Your task to perform on an android device: change the clock display to analog Image 0: 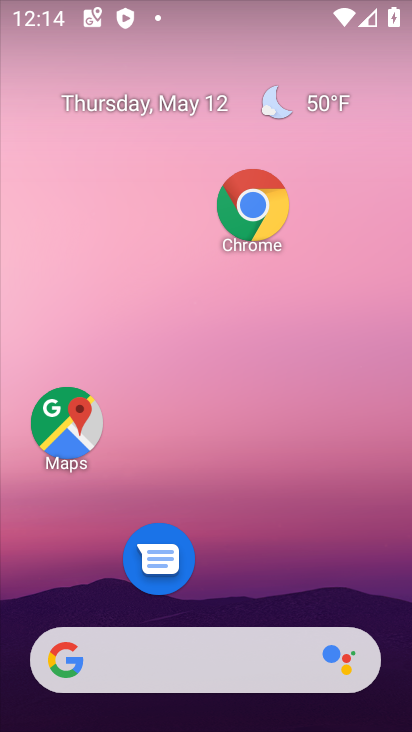
Step 0: drag from (242, 577) to (309, 186)
Your task to perform on an android device: change the clock display to analog Image 1: 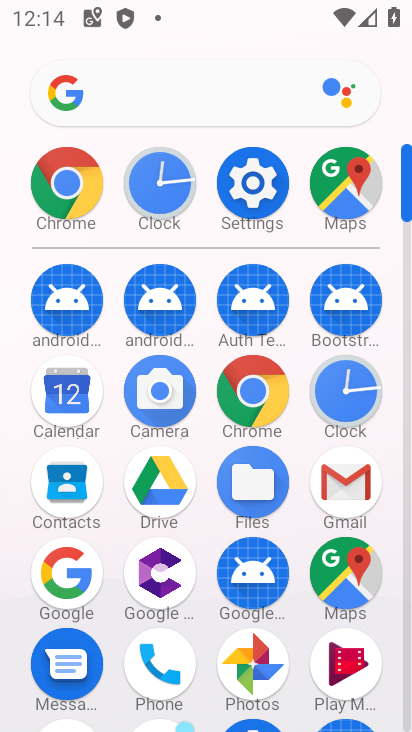
Step 1: click (344, 417)
Your task to perform on an android device: change the clock display to analog Image 2: 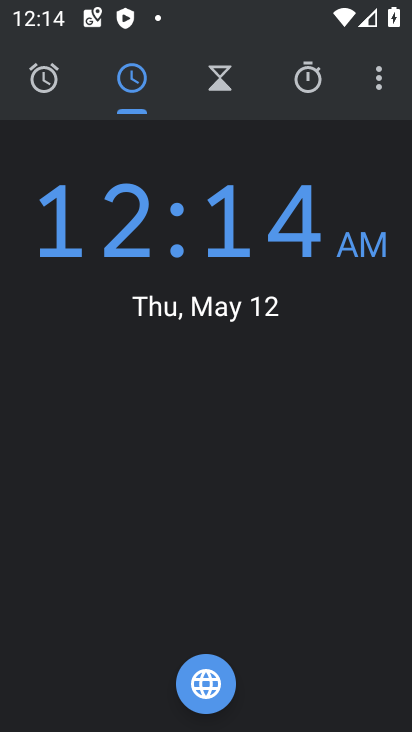
Step 2: click (381, 81)
Your task to perform on an android device: change the clock display to analog Image 3: 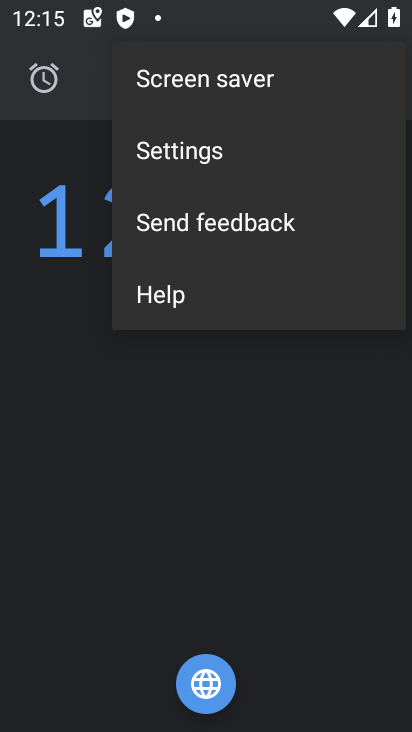
Step 3: click (192, 159)
Your task to perform on an android device: change the clock display to analog Image 4: 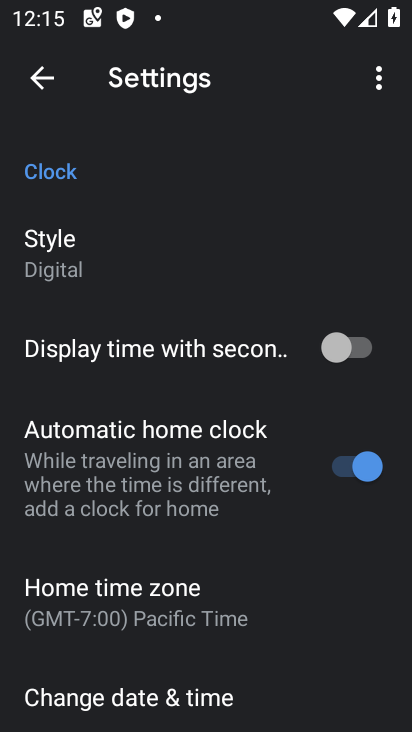
Step 4: click (93, 255)
Your task to perform on an android device: change the clock display to analog Image 5: 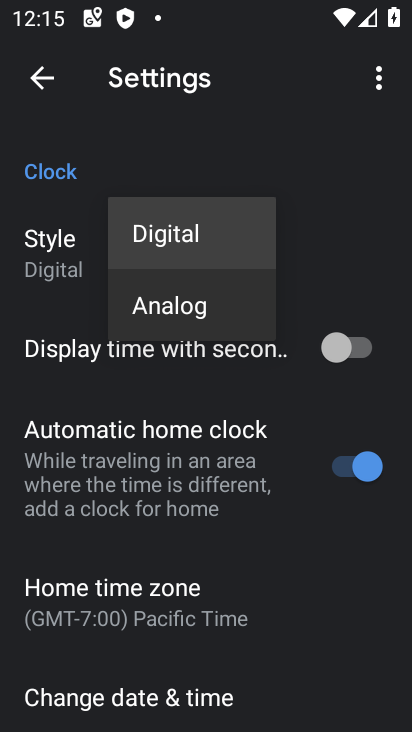
Step 5: click (163, 313)
Your task to perform on an android device: change the clock display to analog Image 6: 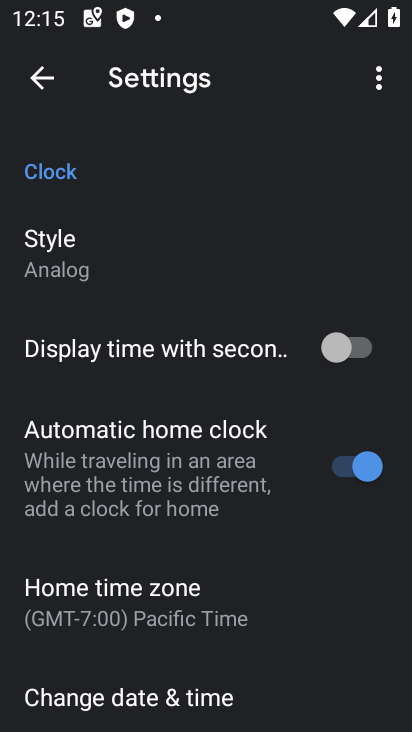
Step 6: task complete